Your task to perform on an android device: Open battery settings Image 0: 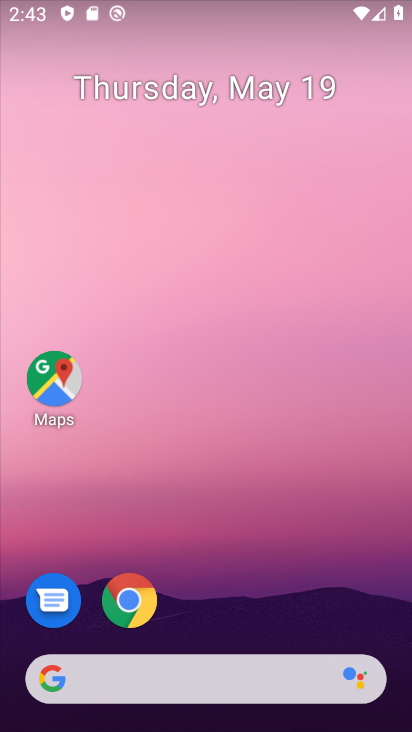
Step 0: drag from (189, 579) to (212, 170)
Your task to perform on an android device: Open battery settings Image 1: 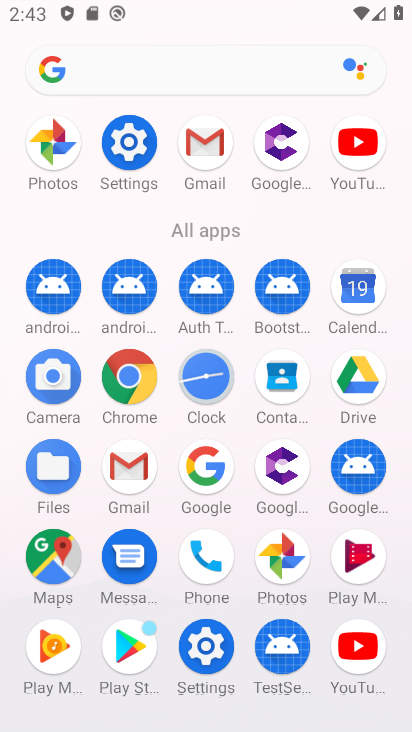
Step 1: click (135, 158)
Your task to perform on an android device: Open battery settings Image 2: 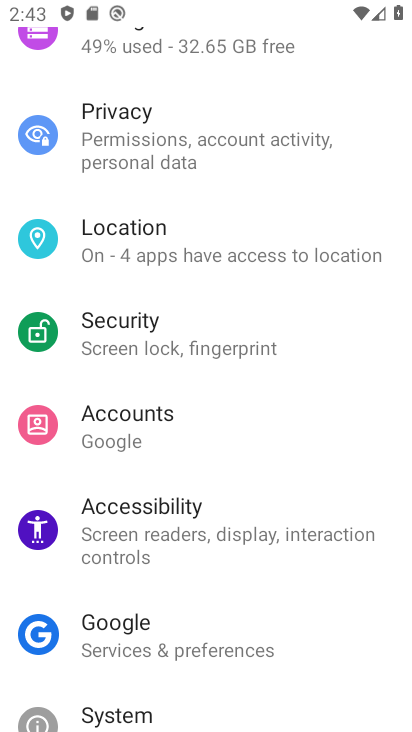
Step 2: drag from (197, 184) to (191, 440)
Your task to perform on an android device: Open battery settings Image 3: 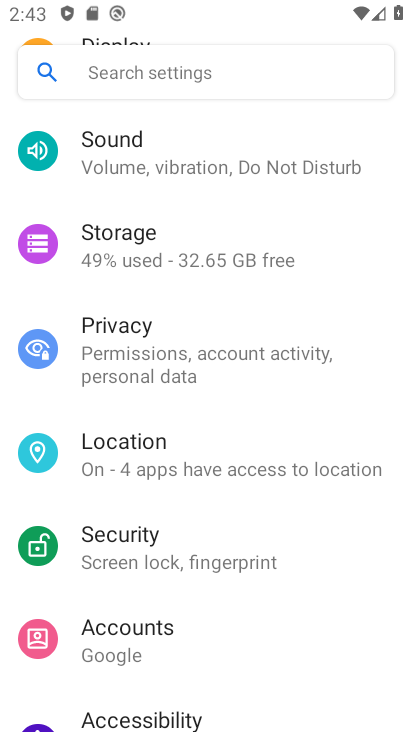
Step 3: click (183, 226)
Your task to perform on an android device: Open battery settings Image 4: 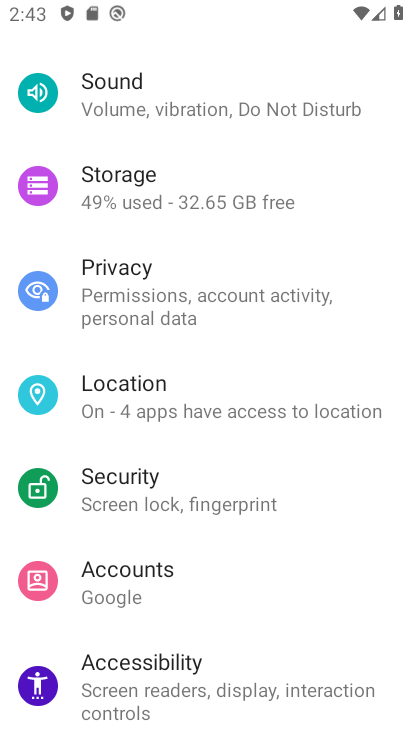
Step 4: drag from (179, 457) to (241, 147)
Your task to perform on an android device: Open battery settings Image 5: 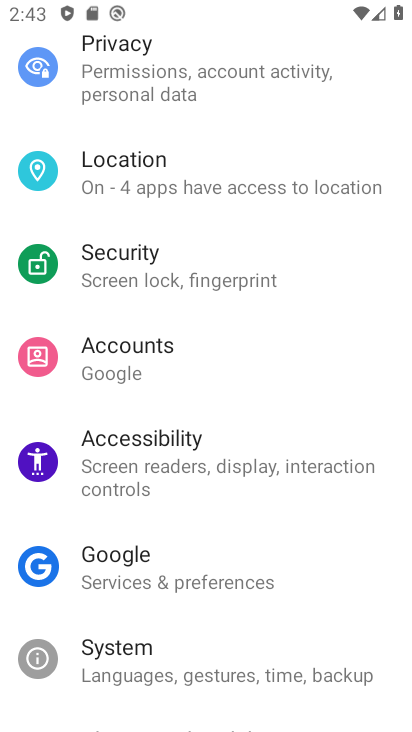
Step 5: drag from (202, 557) to (200, 729)
Your task to perform on an android device: Open battery settings Image 6: 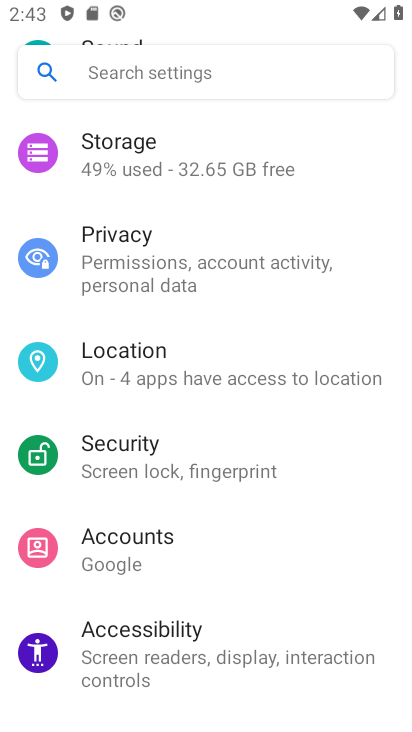
Step 6: drag from (208, 259) to (198, 611)
Your task to perform on an android device: Open battery settings Image 7: 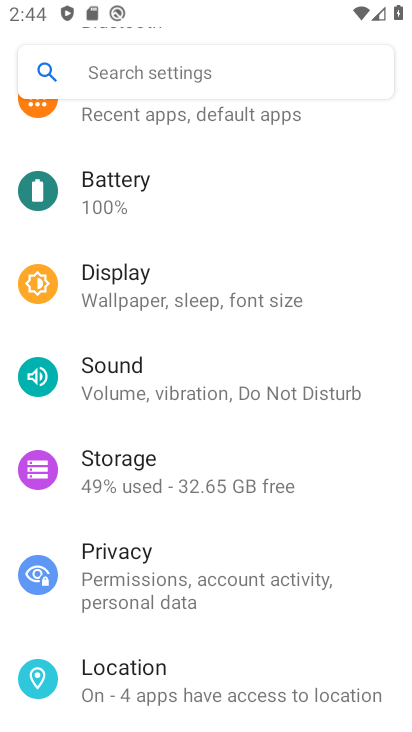
Step 7: click (127, 190)
Your task to perform on an android device: Open battery settings Image 8: 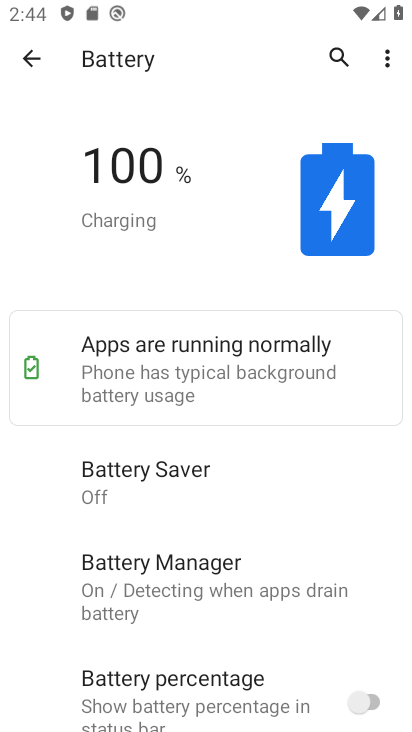
Step 8: task complete